Your task to perform on an android device: Open location settings Image 0: 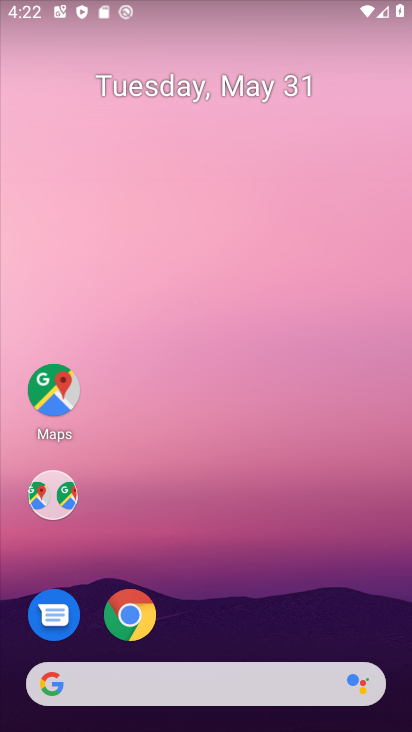
Step 0: drag from (273, 707) to (126, 4)
Your task to perform on an android device: Open location settings Image 1: 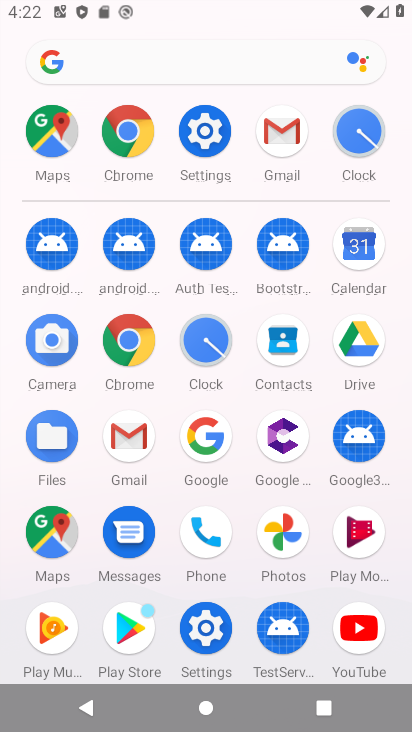
Step 1: click (203, 131)
Your task to perform on an android device: Open location settings Image 2: 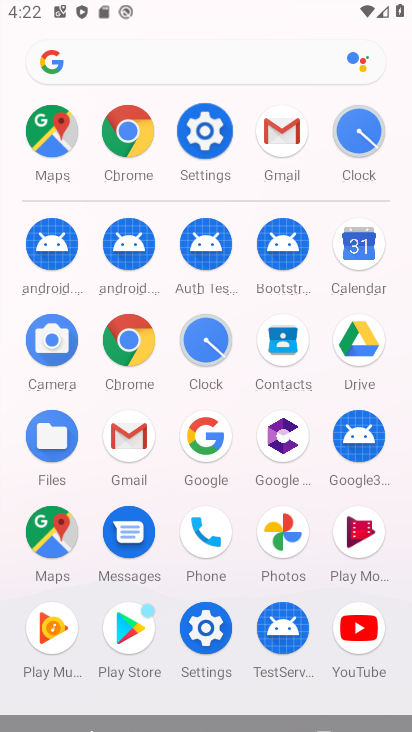
Step 2: click (203, 131)
Your task to perform on an android device: Open location settings Image 3: 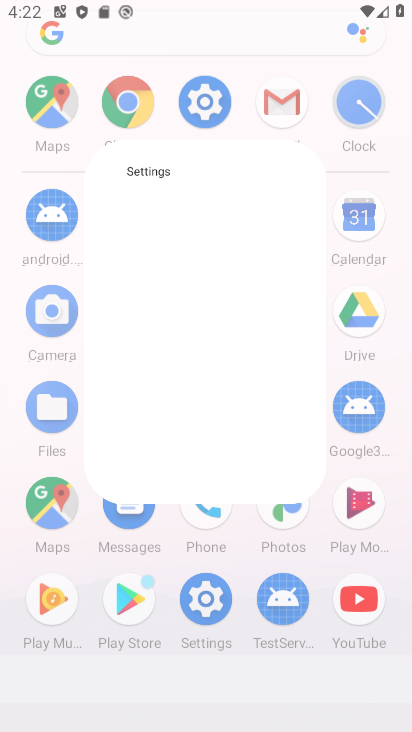
Step 3: click (204, 131)
Your task to perform on an android device: Open location settings Image 4: 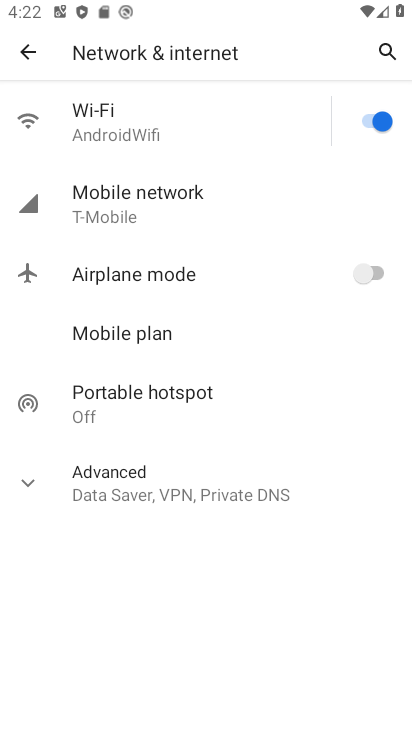
Step 4: click (21, 42)
Your task to perform on an android device: Open location settings Image 5: 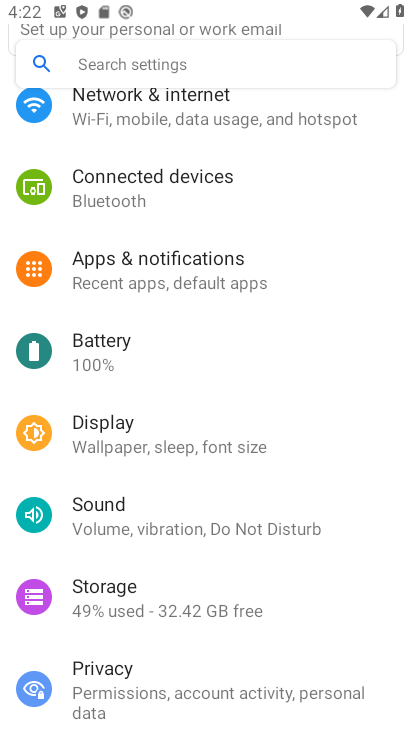
Step 5: drag from (169, 547) to (164, 256)
Your task to perform on an android device: Open location settings Image 6: 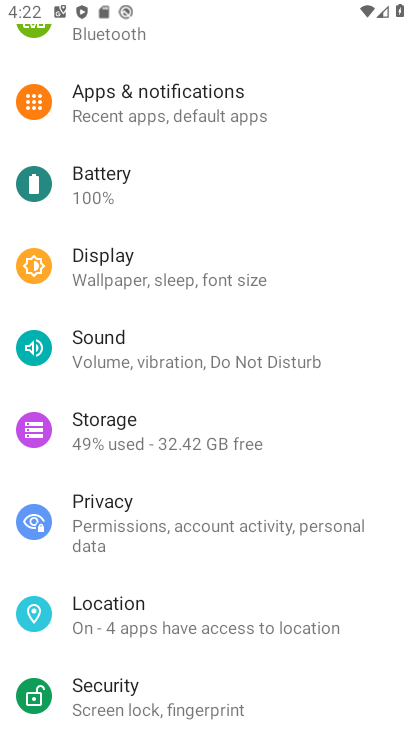
Step 6: drag from (190, 466) to (168, 198)
Your task to perform on an android device: Open location settings Image 7: 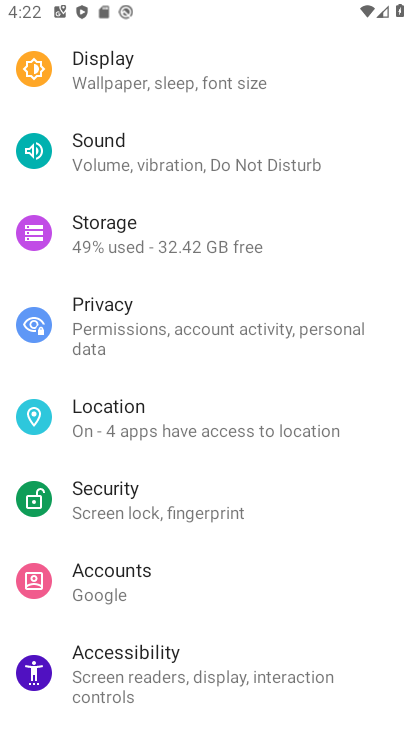
Step 7: click (118, 410)
Your task to perform on an android device: Open location settings Image 8: 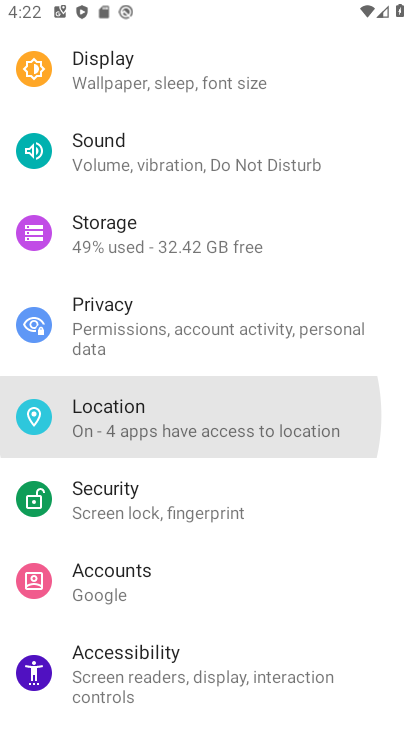
Step 8: click (118, 410)
Your task to perform on an android device: Open location settings Image 9: 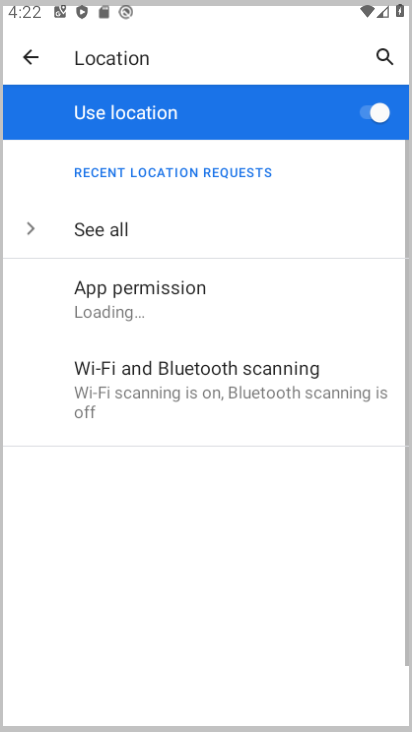
Step 9: click (105, 428)
Your task to perform on an android device: Open location settings Image 10: 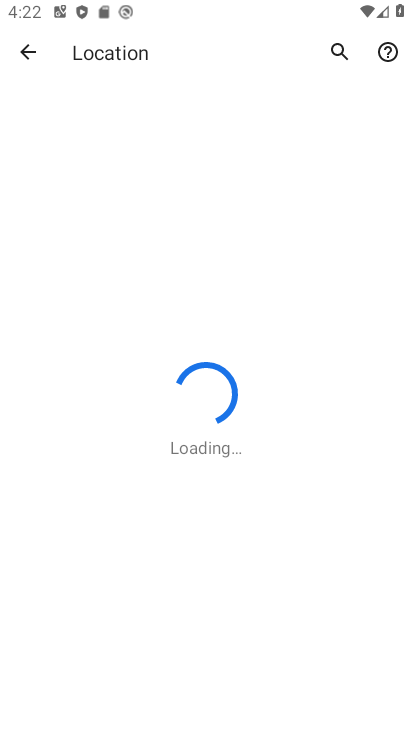
Step 10: click (16, 43)
Your task to perform on an android device: Open location settings Image 11: 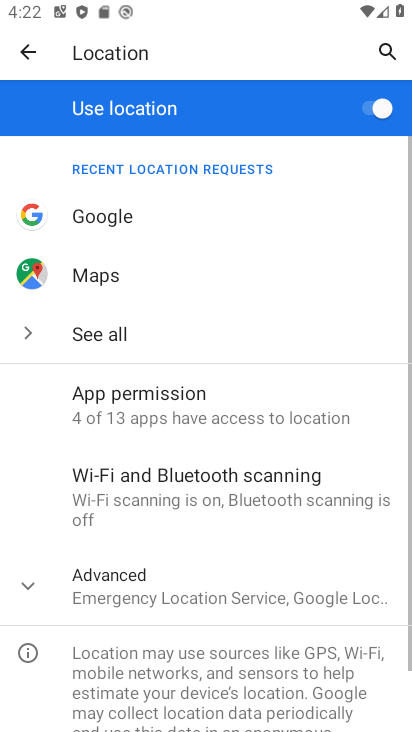
Step 11: drag from (174, 201) to (172, 25)
Your task to perform on an android device: Open location settings Image 12: 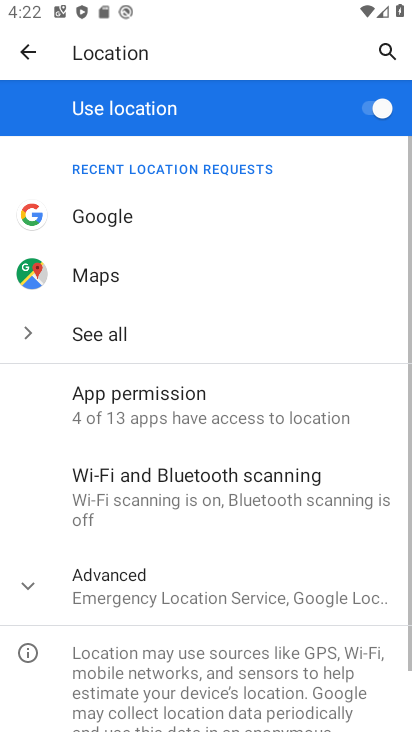
Step 12: drag from (234, 297) to (255, 82)
Your task to perform on an android device: Open location settings Image 13: 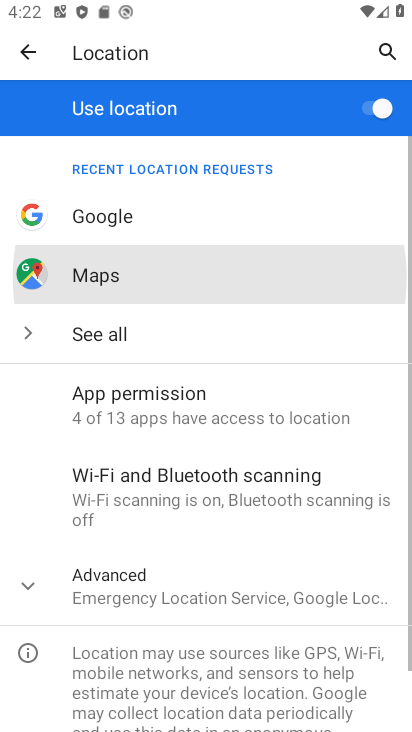
Step 13: drag from (226, 382) to (240, 139)
Your task to perform on an android device: Open location settings Image 14: 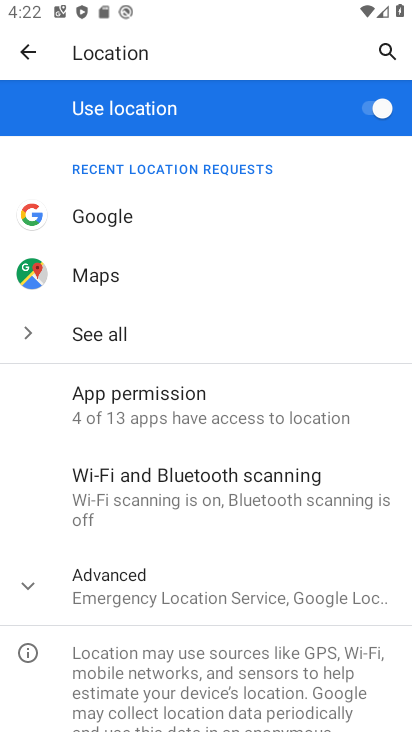
Step 14: click (24, 45)
Your task to perform on an android device: Open location settings Image 15: 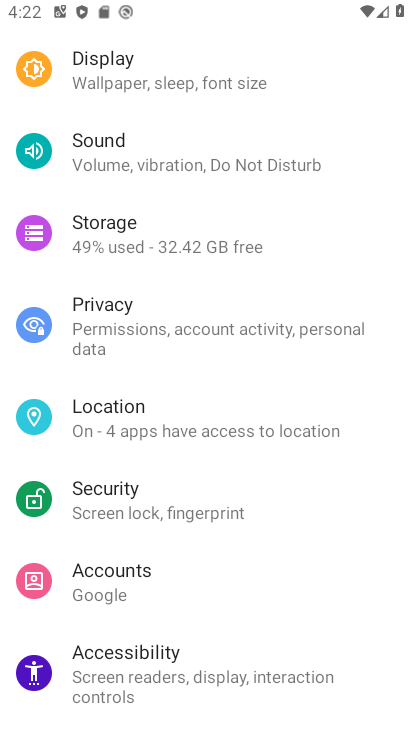
Step 15: click (131, 416)
Your task to perform on an android device: Open location settings Image 16: 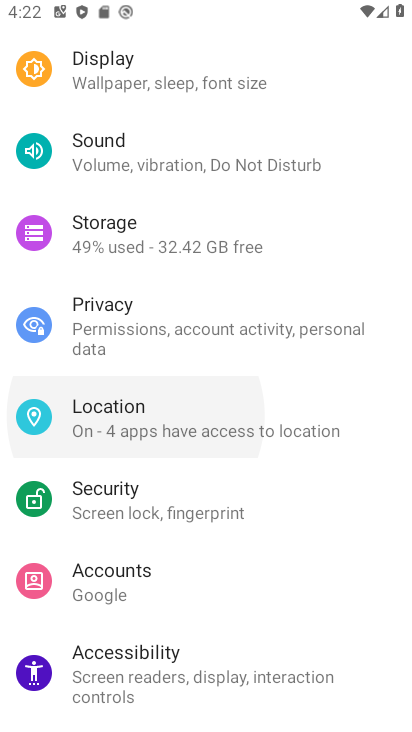
Step 16: click (131, 418)
Your task to perform on an android device: Open location settings Image 17: 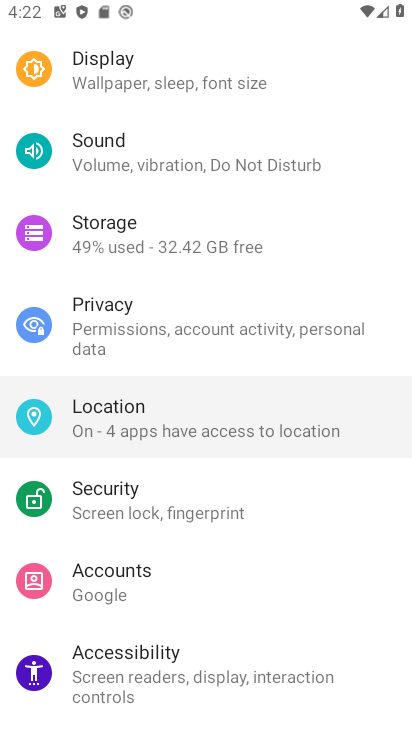
Step 17: click (131, 418)
Your task to perform on an android device: Open location settings Image 18: 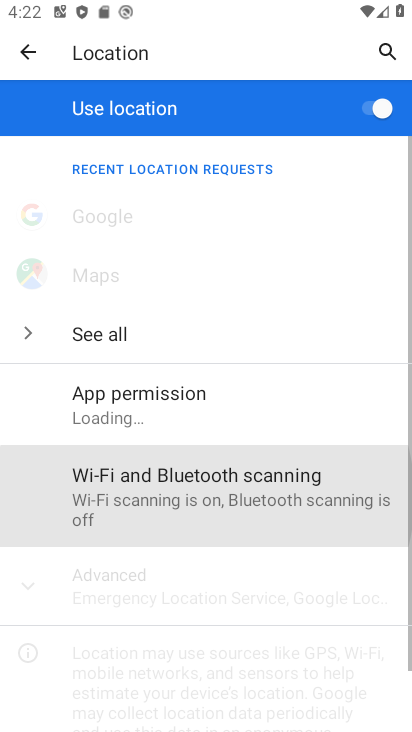
Step 18: click (142, 426)
Your task to perform on an android device: Open location settings Image 19: 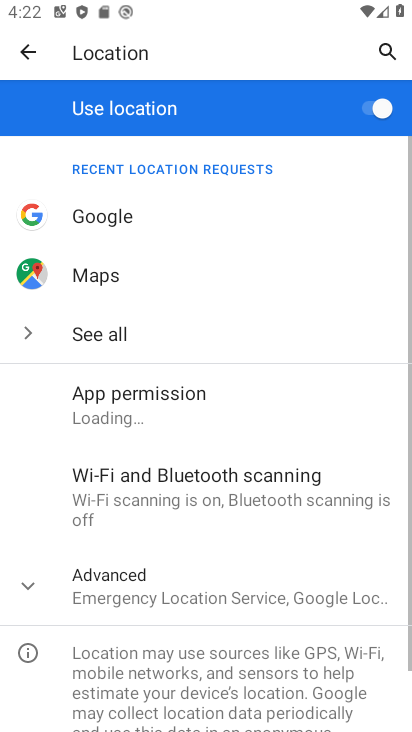
Step 19: click (143, 427)
Your task to perform on an android device: Open location settings Image 20: 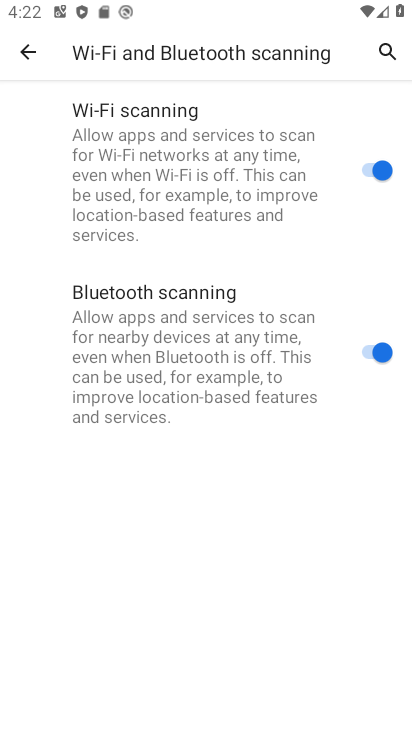
Step 20: click (29, 47)
Your task to perform on an android device: Open location settings Image 21: 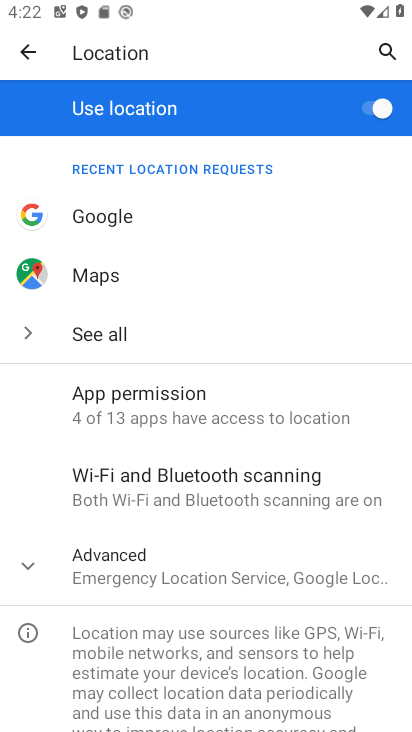
Step 21: task complete